Your task to perform on an android device: Open internet settings Image 0: 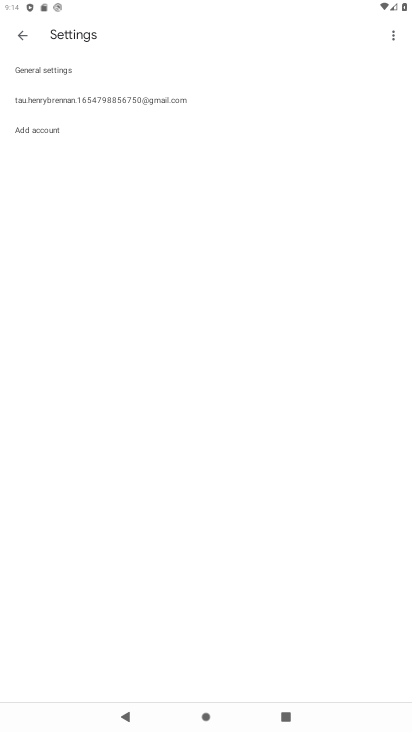
Step 0: press home button
Your task to perform on an android device: Open internet settings Image 1: 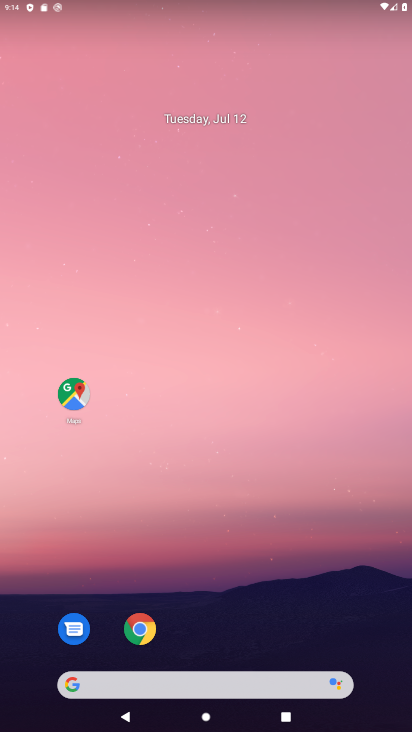
Step 1: drag from (368, 645) to (345, 105)
Your task to perform on an android device: Open internet settings Image 2: 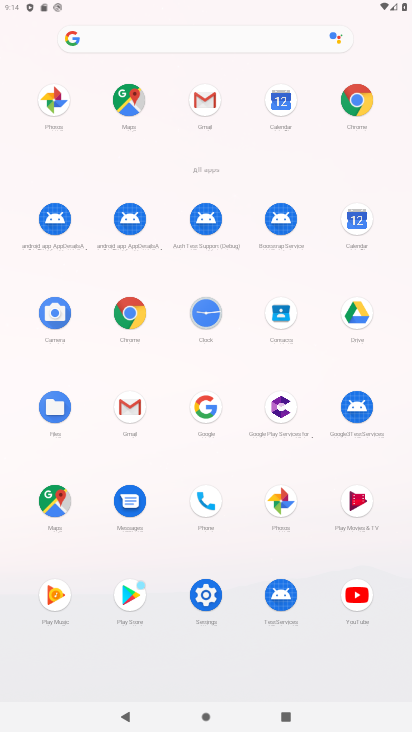
Step 2: click (204, 597)
Your task to perform on an android device: Open internet settings Image 3: 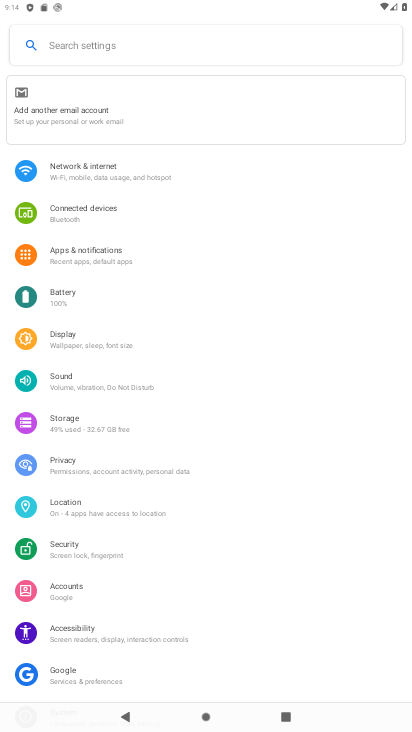
Step 3: click (81, 160)
Your task to perform on an android device: Open internet settings Image 4: 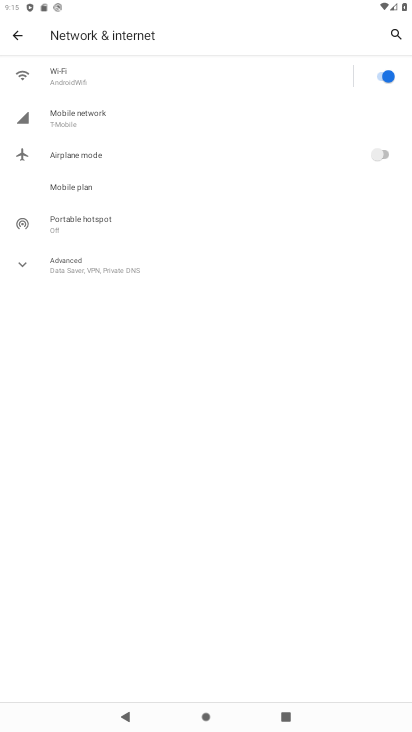
Step 4: click (51, 78)
Your task to perform on an android device: Open internet settings Image 5: 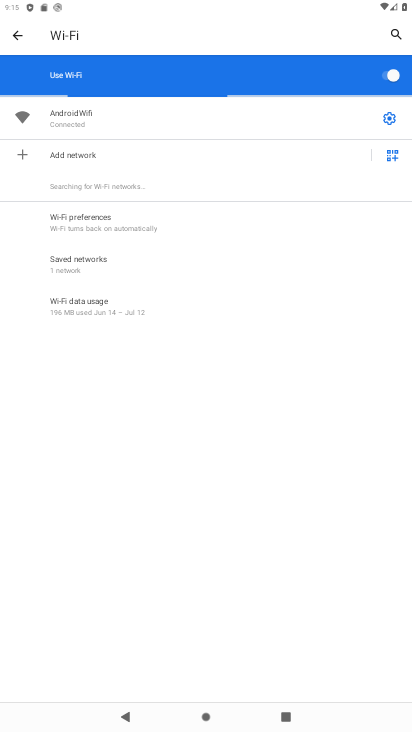
Step 5: task complete